Your task to perform on an android device: move a message to another label in the gmail app Image 0: 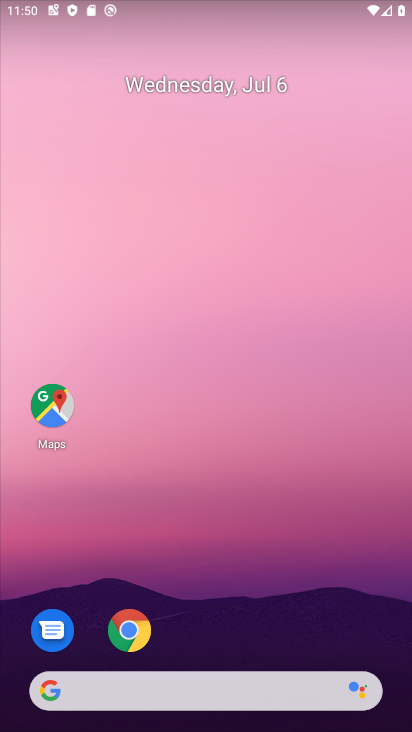
Step 0: drag from (222, 615) to (218, 149)
Your task to perform on an android device: move a message to another label in the gmail app Image 1: 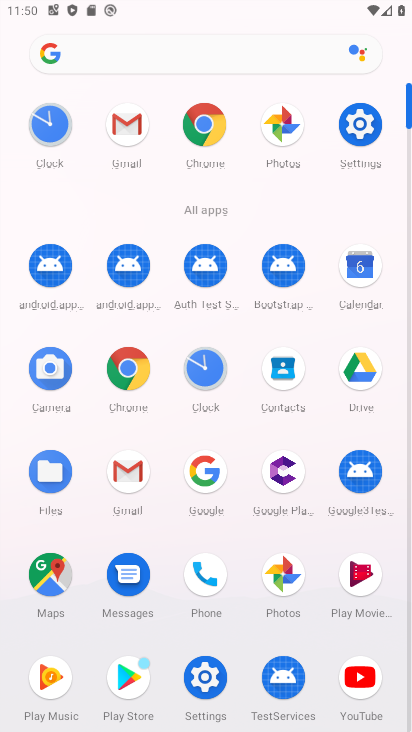
Step 1: click (136, 477)
Your task to perform on an android device: move a message to another label in the gmail app Image 2: 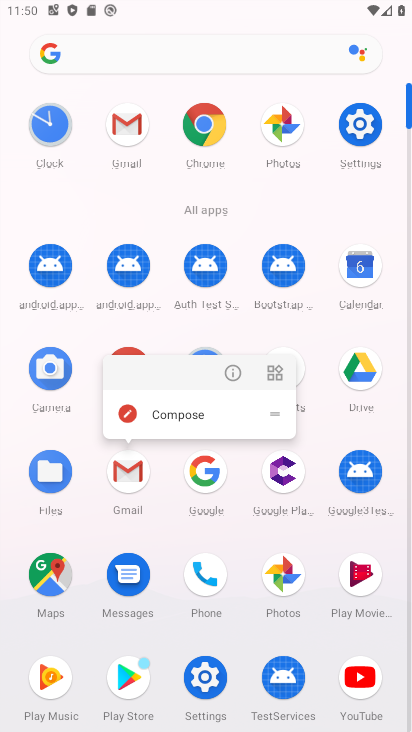
Step 2: click (131, 471)
Your task to perform on an android device: move a message to another label in the gmail app Image 3: 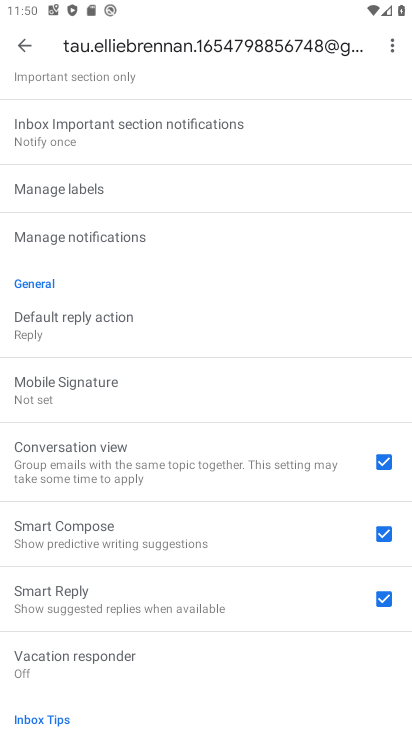
Step 3: click (27, 40)
Your task to perform on an android device: move a message to another label in the gmail app Image 4: 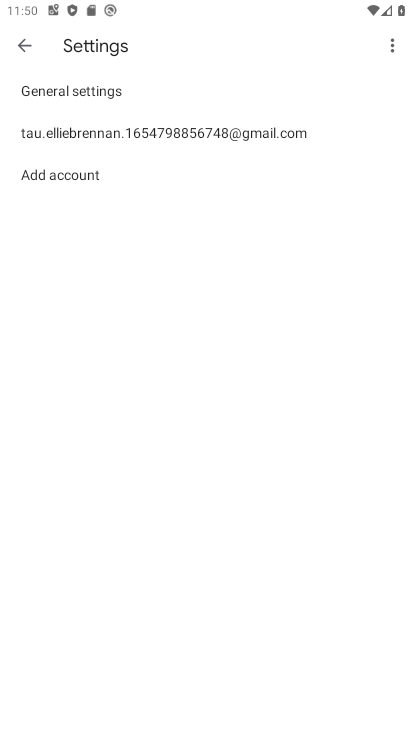
Step 4: click (28, 40)
Your task to perform on an android device: move a message to another label in the gmail app Image 5: 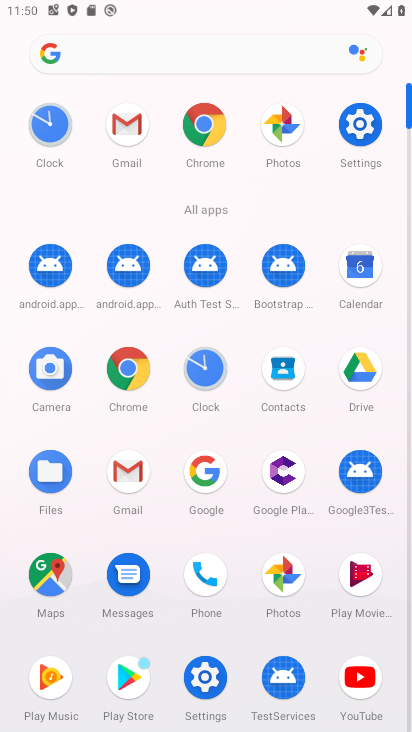
Step 5: click (132, 477)
Your task to perform on an android device: move a message to another label in the gmail app Image 6: 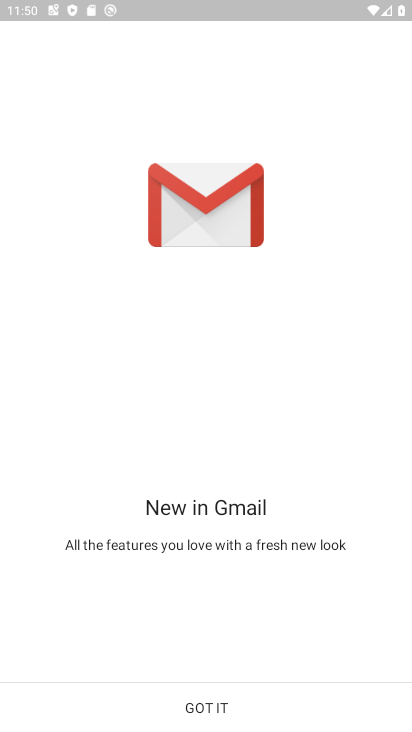
Step 6: click (239, 713)
Your task to perform on an android device: move a message to another label in the gmail app Image 7: 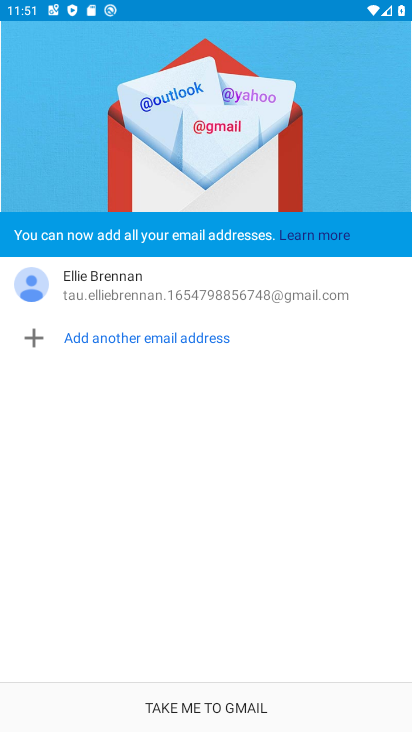
Step 7: click (240, 711)
Your task to perform on an android device: move a message to another label in the gmail app Image 8: 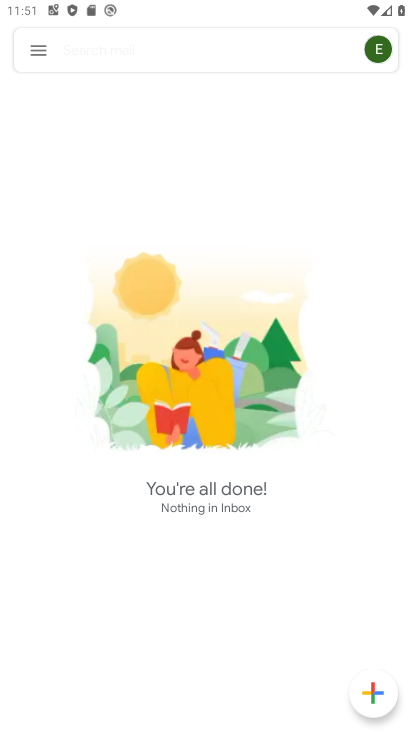
Step 8: task complete